Your task to perform on an android device: Search for "dell xps" on costco.com, select the first entry, add it to the cart, then select checkout. Image 0: 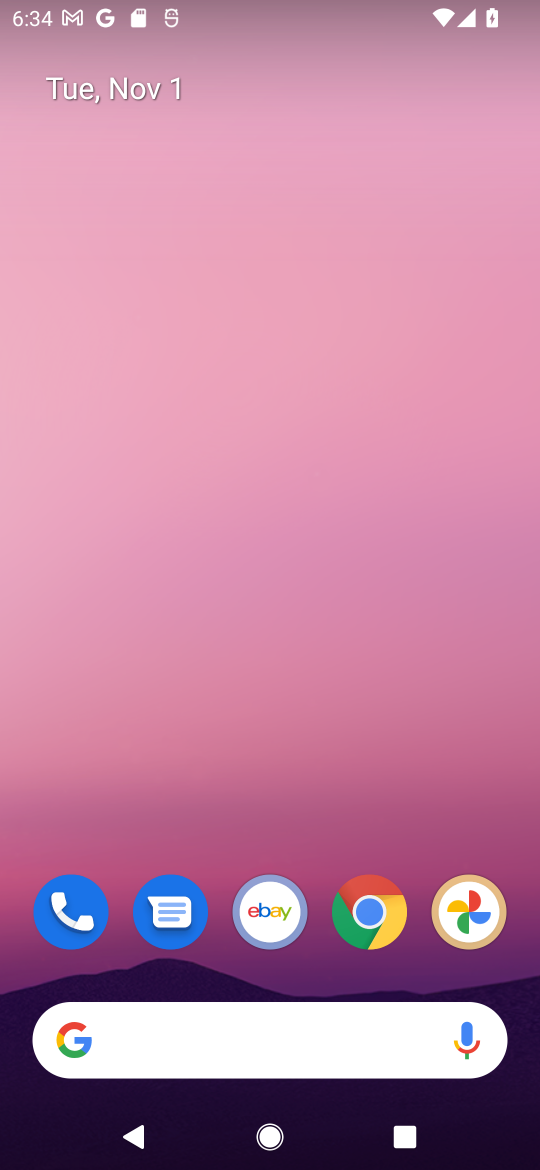
Step 0: click (69, 1035)
Your task to perform on an android device: Search for "dell xps" on costco.com, select the first entry, add it to the cart, then select checkout. Image 1: 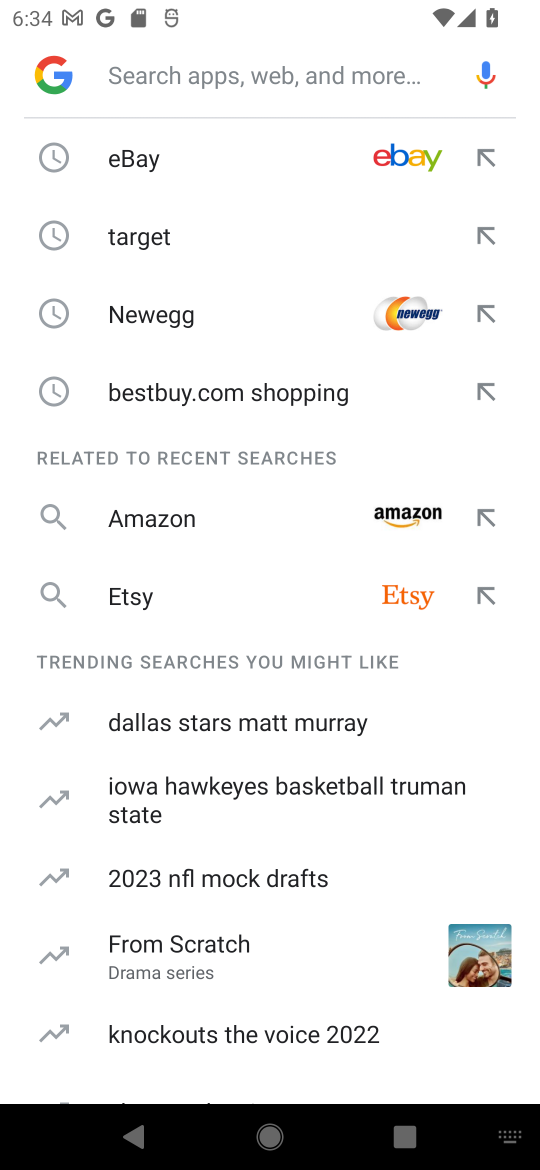
Step 1: type "costco.com"
Your task to perform on an android device: Search for "dell xps" on costco.com, select the first entry, add it to the cart, then select checkout. Image 2: 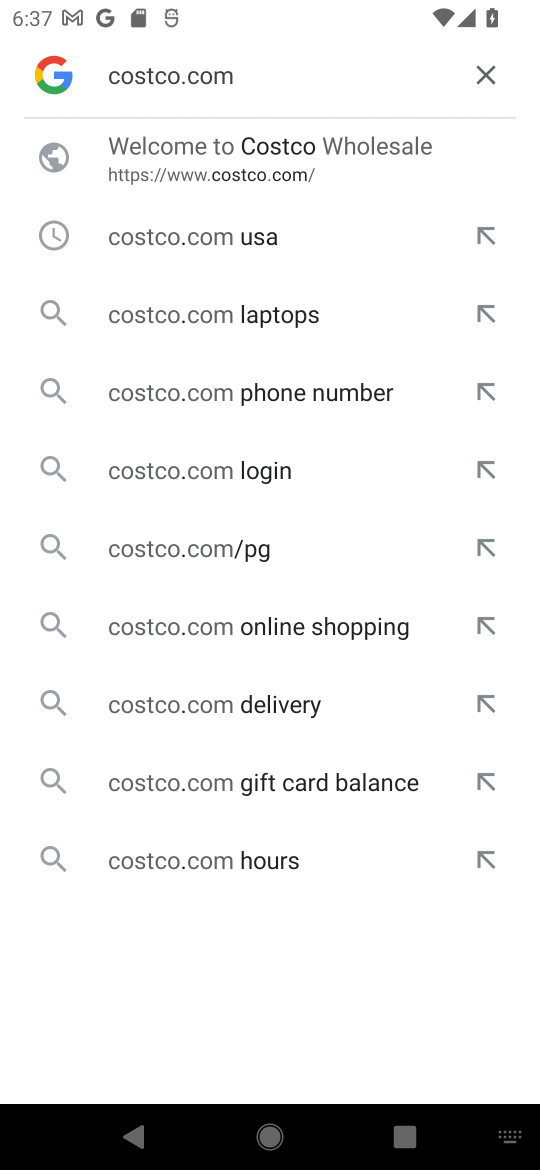
Step 2: click (233, 163)
Your task to perform on an android device: Search for "dell xps" on costco.com, select the first entry, add it to the cart, then select checkout. Image 3: 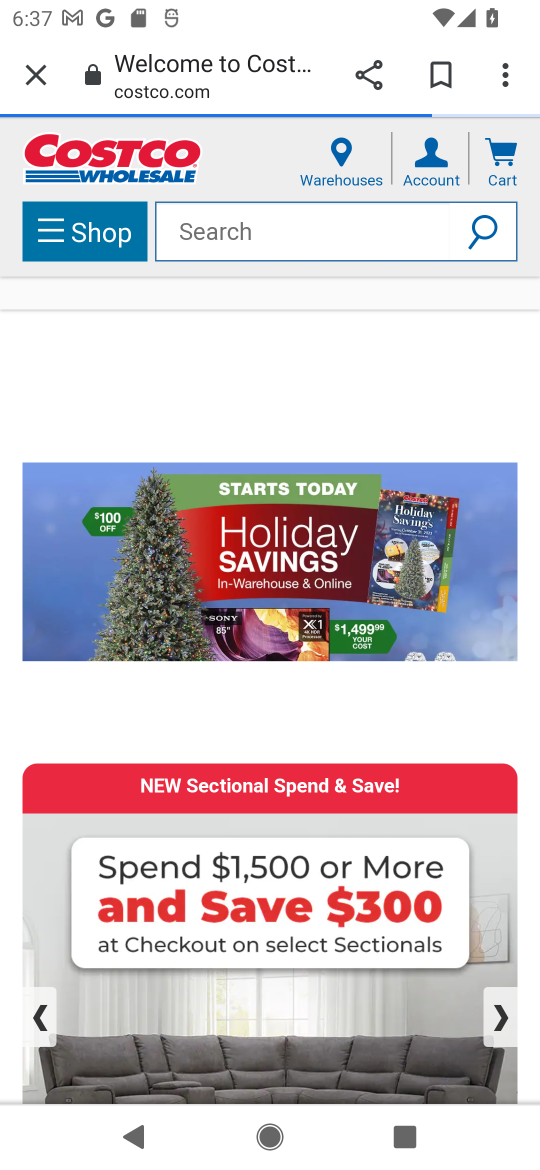
Step 3: click (278, 252)
Your task to perform on an android device: Search for "dell xps" on costco.com, select the first entry, add it to the cart, then select checkout. Image 4: 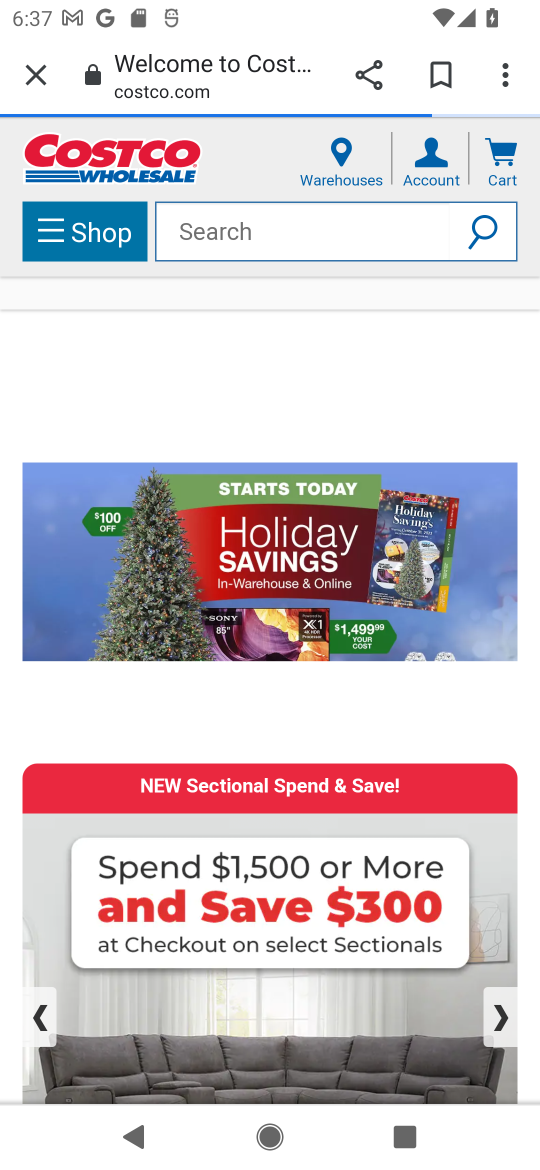
Step 4: click (267, 230)
Your task to perform on an android device: Search for "dell xps" on costco.com, select the first entry, add it to the cart, then select checkout. Image 5: 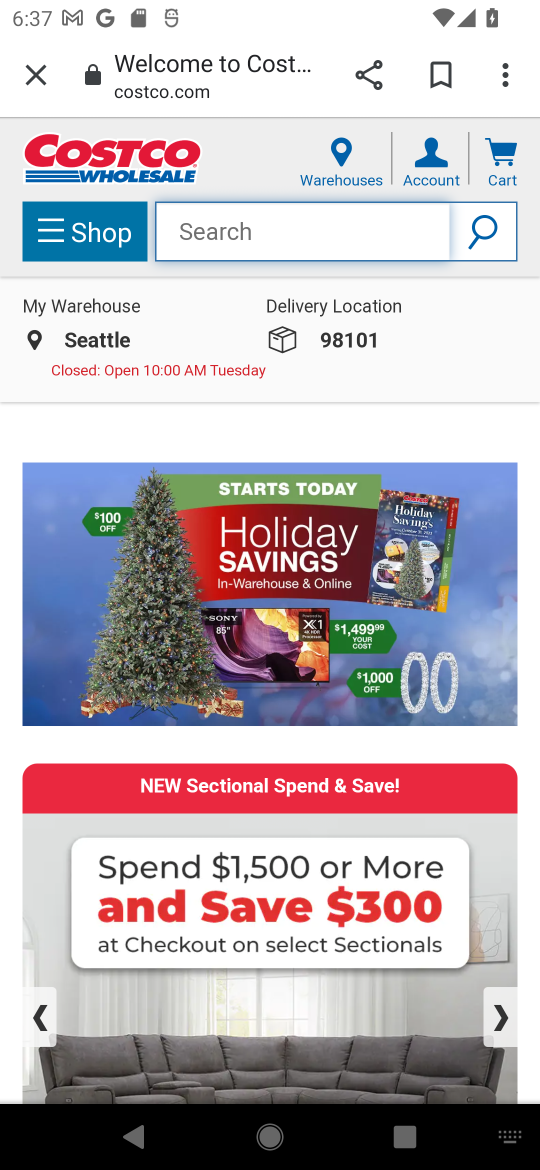
Step 5: type "dell xps"
Your task to perform on an android device: Search for "dell xps" on costco.com, select the first entry, add it to the cart, then select checkout. Image 6: 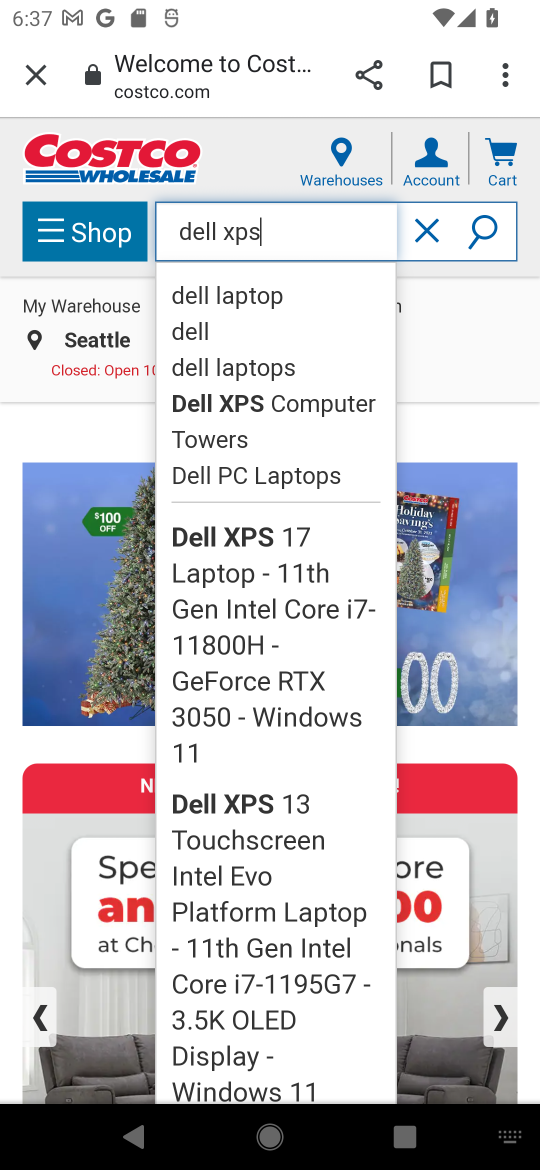
Step 6: click (260, 295)
Your task to perform on an android device: Search for "dell xps" on costco.com, select the first entry, add it to the cart, then select checkout. Image 7: 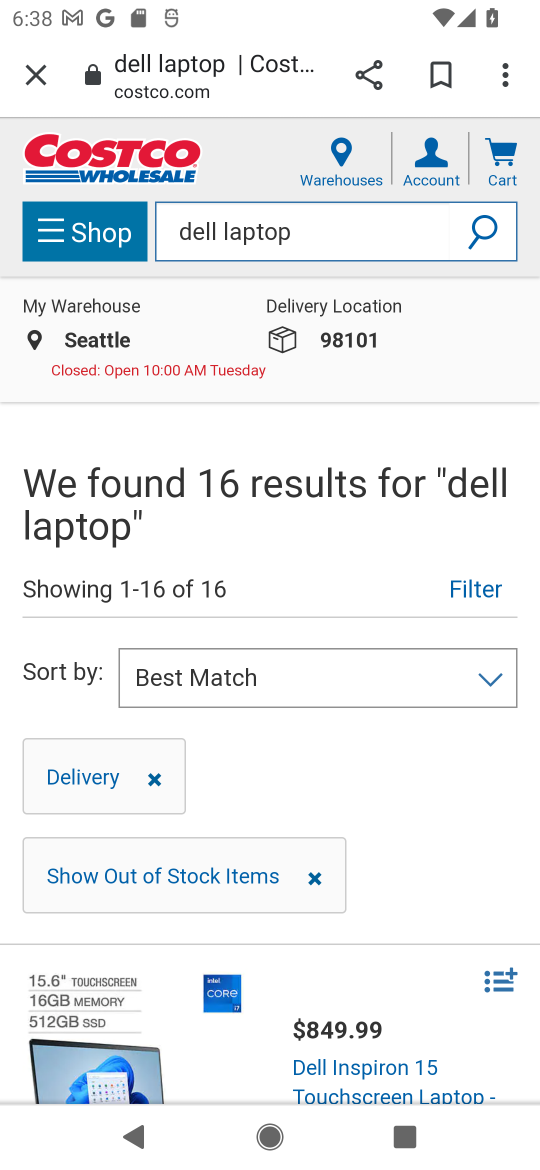
Step 7: drag from (216, 1043) to (240, 399)
Your task to perform on an android device: Search for "dell xps" on costco.com, select the first entry, add it to the cart, then select checkout. Image 8: 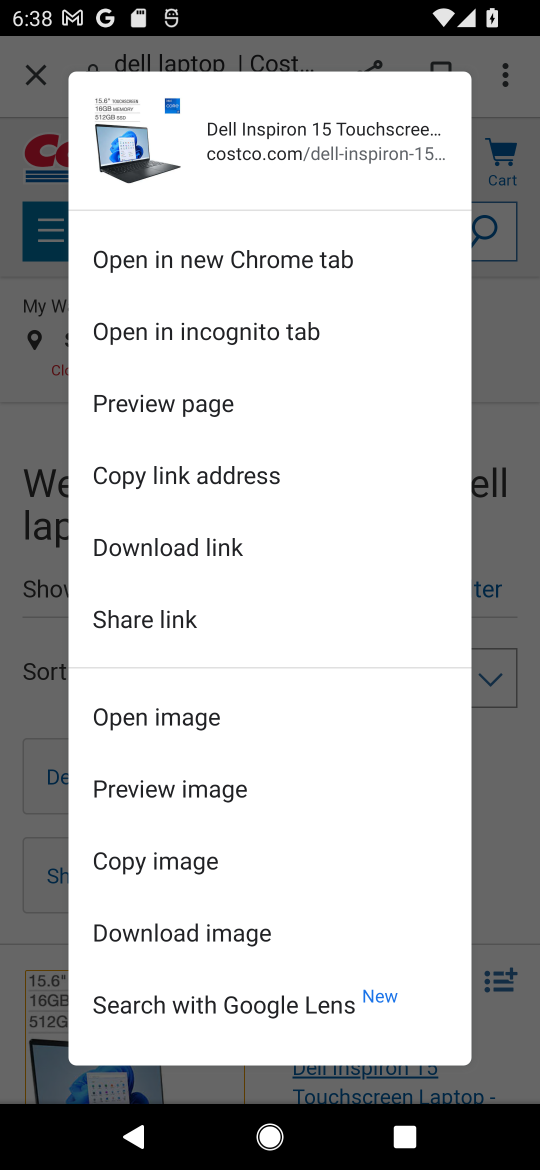
Step 8: click (511, 316)
Your task to perform on an android device: Search for "dell xps" on costco.com, select the first entry, add it to the cart, then select checkout. Image 9: 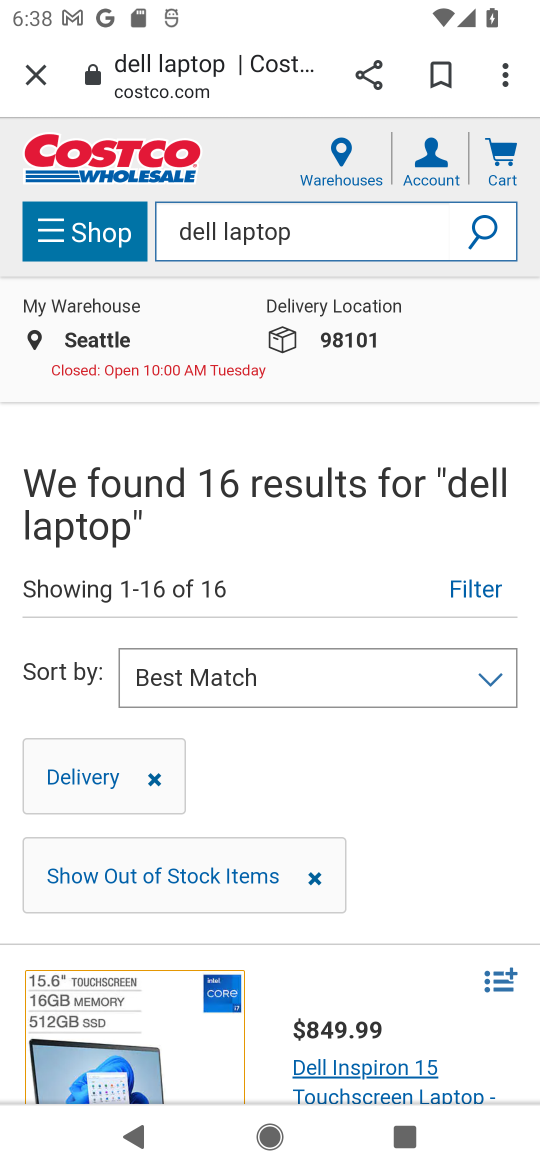
Step 9: click (130, 1052)
Your task to perform on an android device: Search for "dell xps" on costco.com, select the first entry, add it to the cart, then select checkout. Image 10: 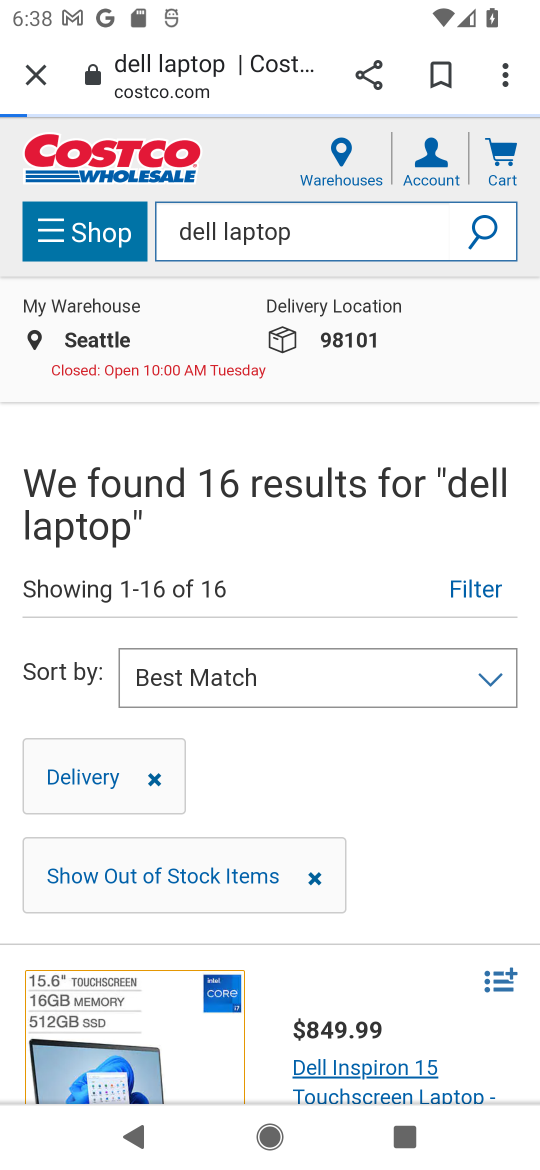
Step 10: click (321, 1038)
Your task to perform on an android device: Search for "dell xps" on costco.com, select the first entry, add it to the cart, then select checkout. Image 11: 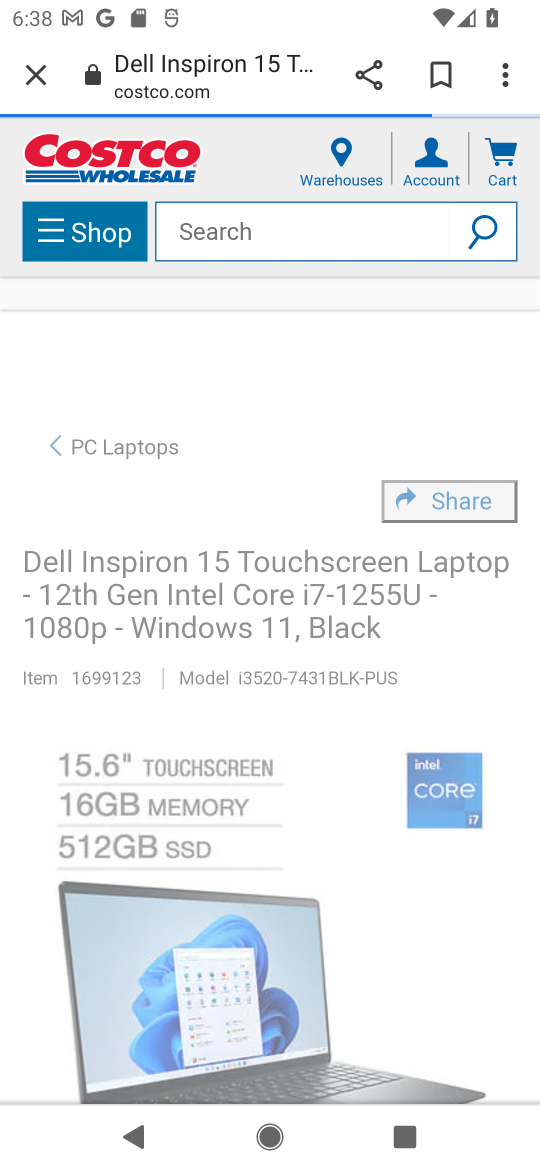
Step 11: drag from (313, 923) to (282, 319)
Your task to perform on an android device: Search for "dell xps" on costco.com, select the first entry, add it to the cart, then select checkout. Image 12: 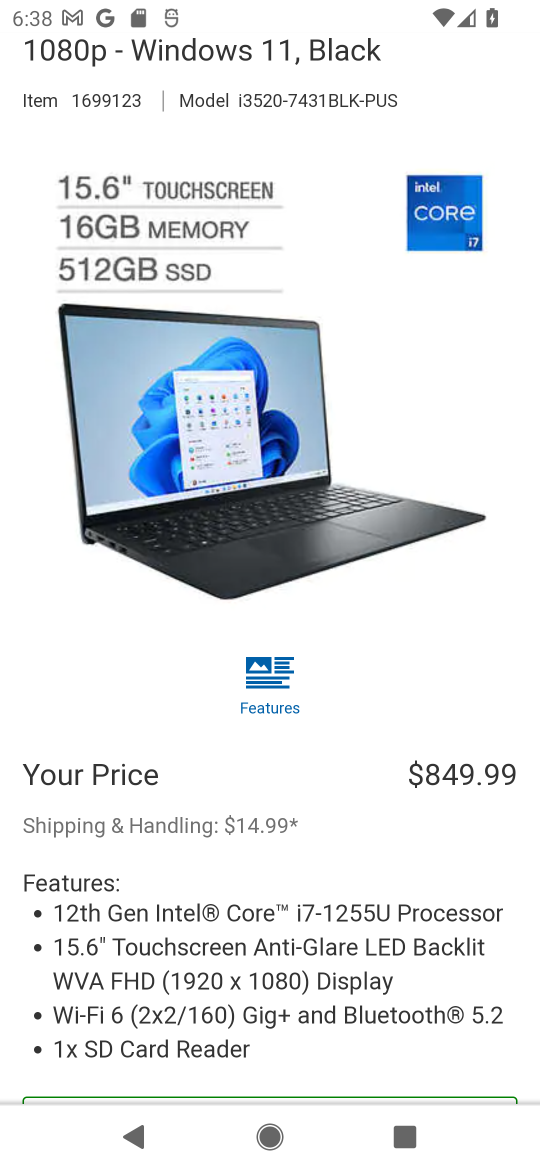
Step 12: drag from (443, 1020) to (357, 421)
Your task to perform on an android device: Search for "dell xps" on costco.com, select the first entry, add it to the cart, then select checkout. Image 13: 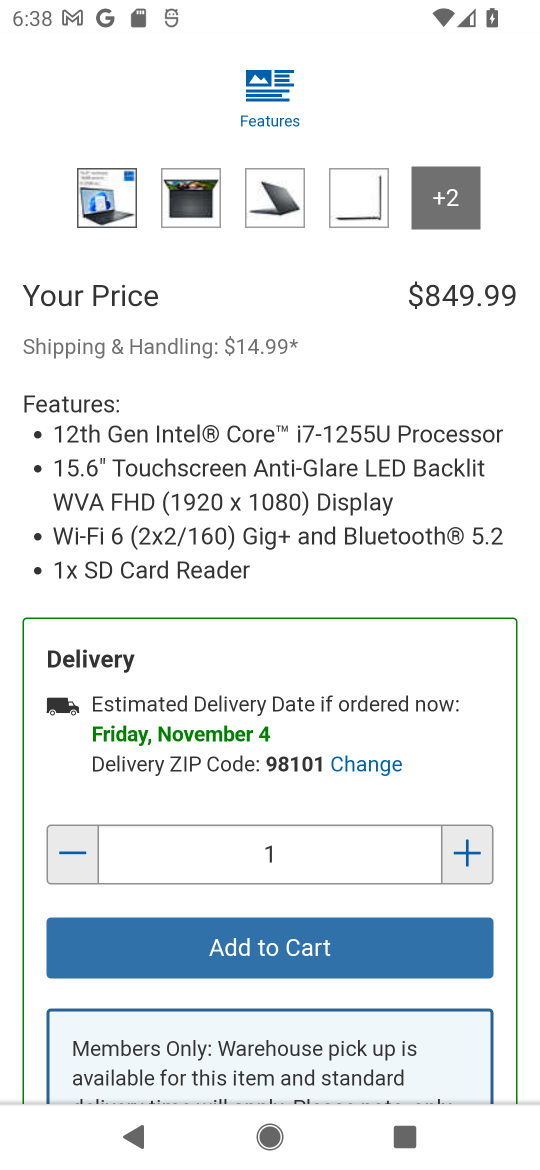
Step 13: click (270, 952)
Your task to perform on an android device: Search for "dell xps" on costco.com, select the first entry, add it to the cart, then select checkout. Image 14: 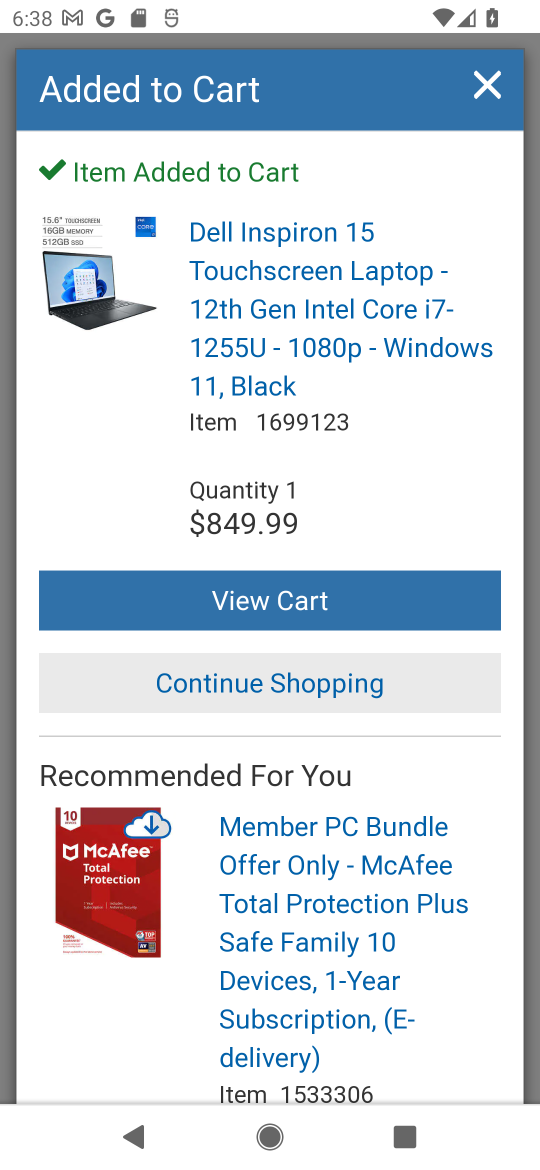
Step 14: click (260, 604)
Your task to perform on an android device: Search for "dell xps" on costco.com, select the first entry, add it to the cart, then select checkout. Image 15: 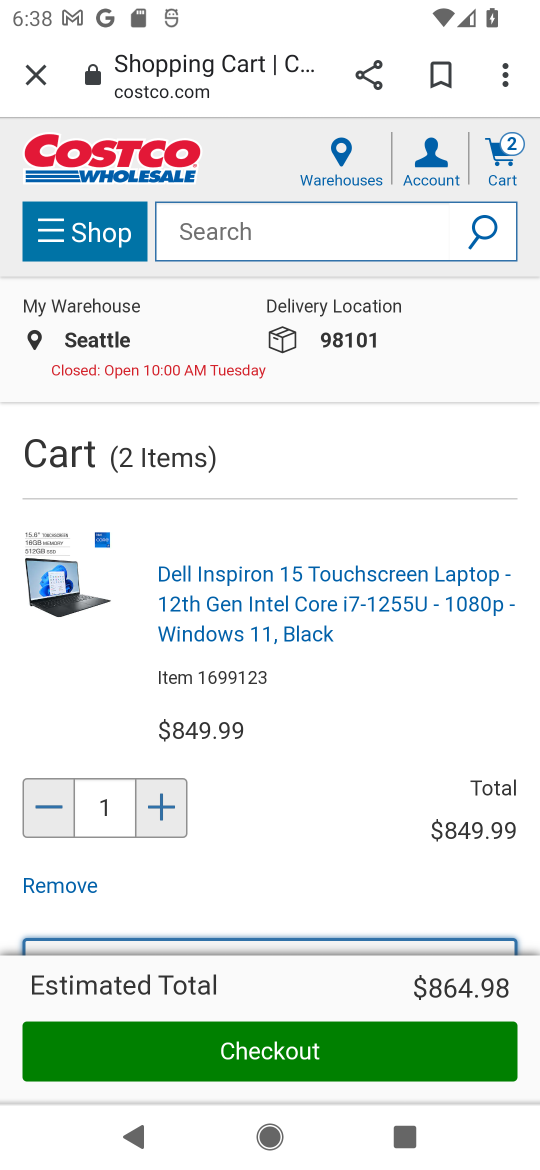
Step 15: click (267, 1056)
Your task to perform on an android device: Search for "dell xps" on costco.com, select the first entry, add it to the cart, then select checkout. Image 16: 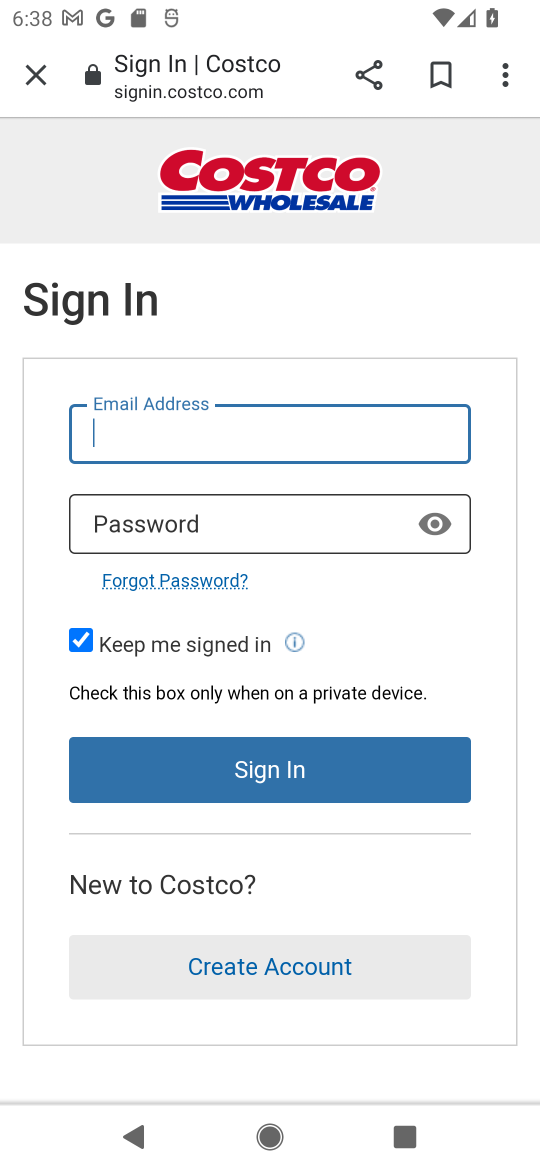
Step 16: task complete